Your task to perform on an android device: Open settings Image 0: 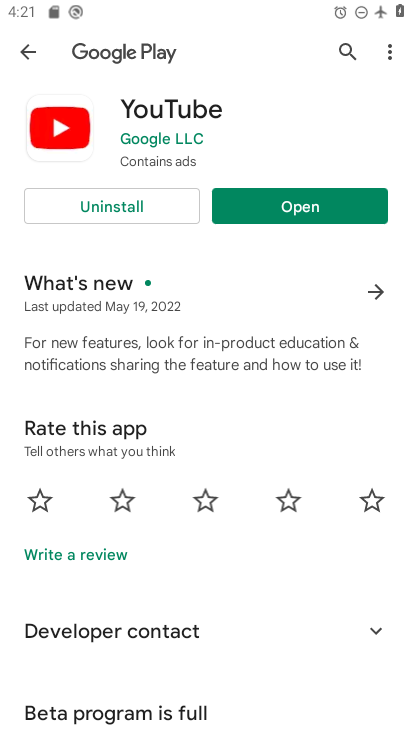
Step 0: press home button
Your task to perform on an android device: Open settings Image 1: 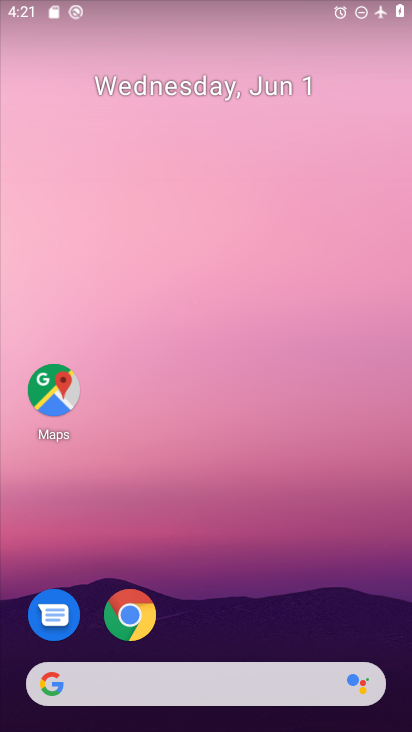
Step 1: drag from (215, 636) to (235, 28)
Your task to perform on an android device: Open settings Image 2: 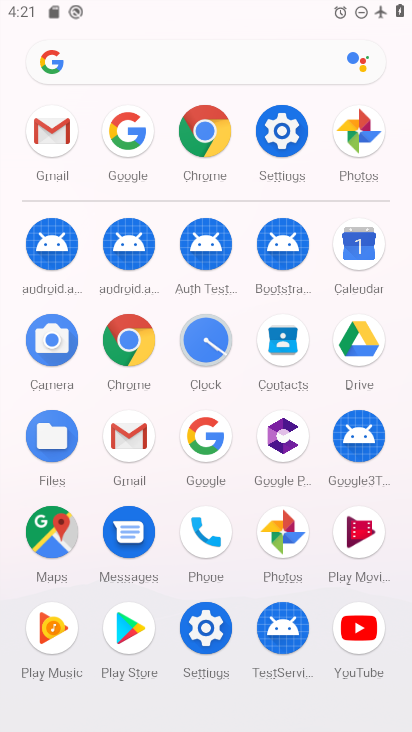
Step 2: click (281, 119)
Your task to perform on an android device: Open settings Image 3: 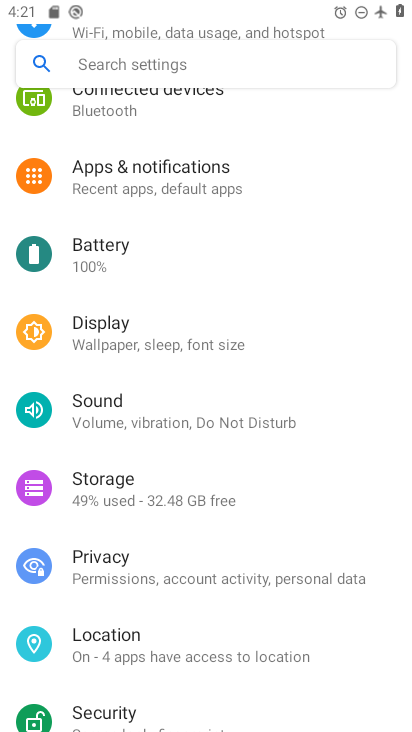
Step 3: task complete